Your task to perform on an android device: see sites visited before in the chrome app Image 0: 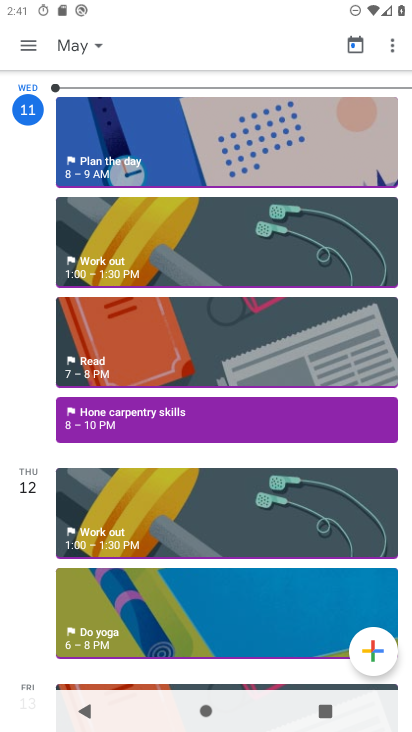
Step 0: press home button
Your task to perform on an android device: see sites visited before in the chrome app Image 1: 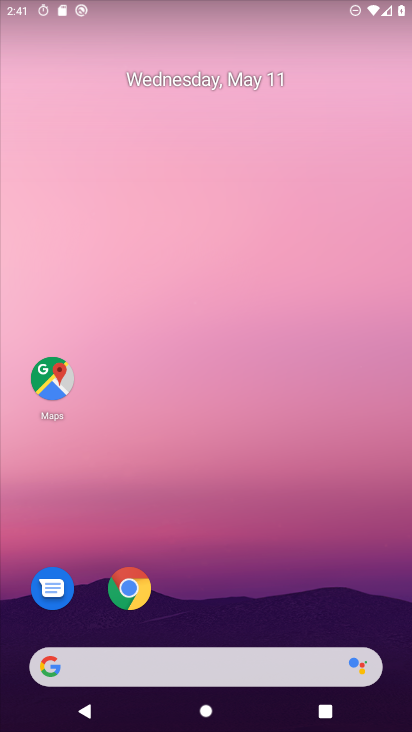
Step 1: click (143, 594)
Your task to perform on an android device: see sites visited before in the chrome app Image 2: 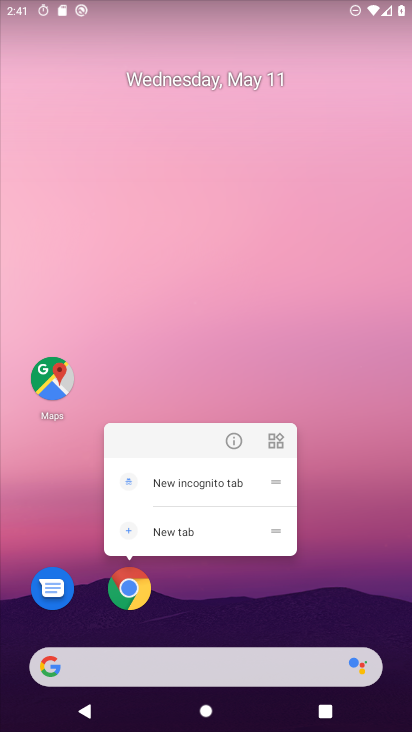
Step 2: click (126, 587)
Your task to perform on an android device: see sites visited before in the chrome app Image 3: 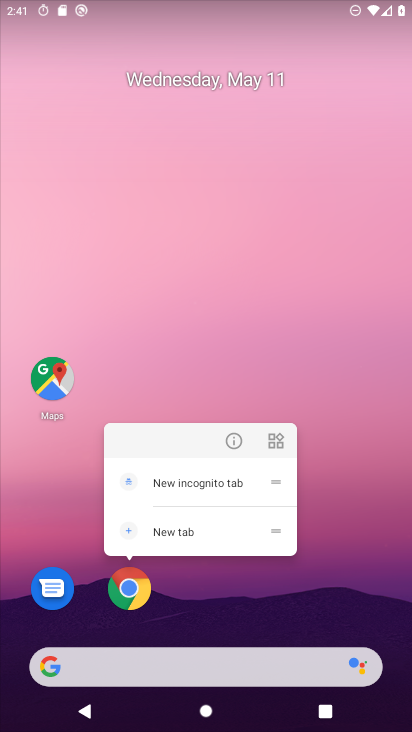
Step 3: click (192, 599)
Your task to perform on an android device: see sites visited before in the chrome app Image 4: 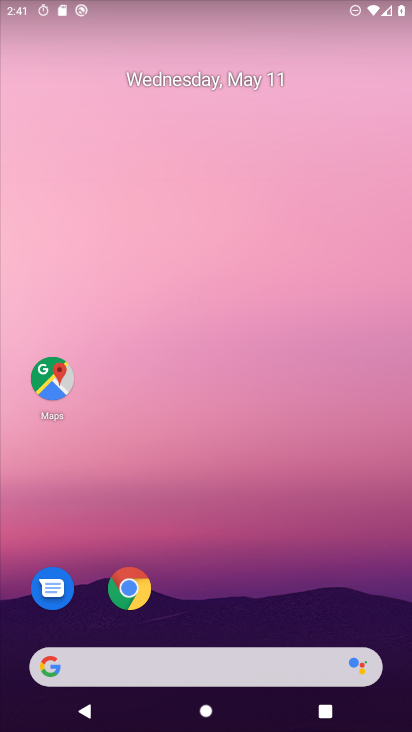
Step 4: drag from (194, 585) to (240, 106)
Your task to perform on an android device: see sites visited before in the chrome app Image 5: 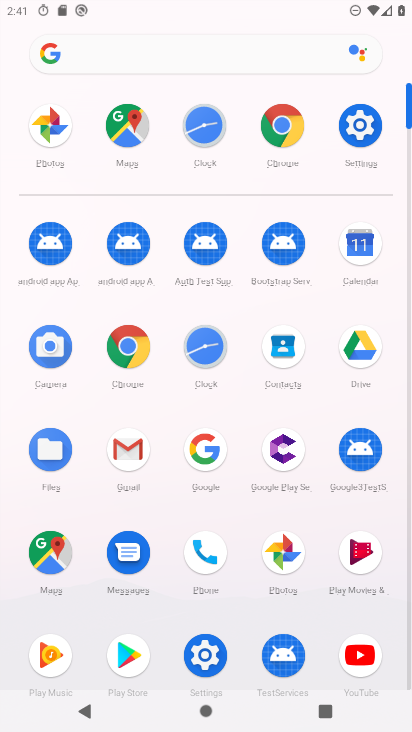
Step 5: click (125, 348)
Your task to perform on an android device: see sites visited before in the chrome app Image 6: 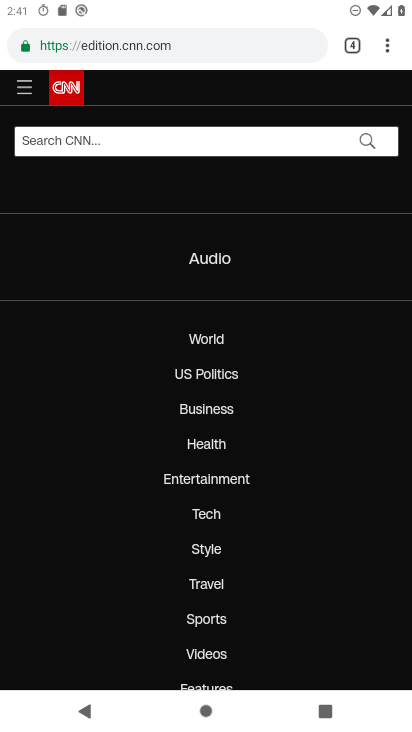
Step 6: drag from (389, 51) to (220, 603)
Your task to perform on an android device: see sites visited before in the chrome app Image 7: 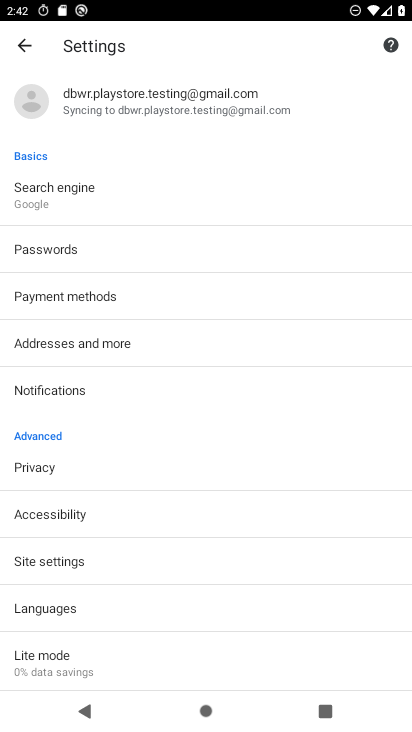
Step 7: click (51, 561)
Your task to perform on an android device: see sites visited before in the chrome app Image 8: 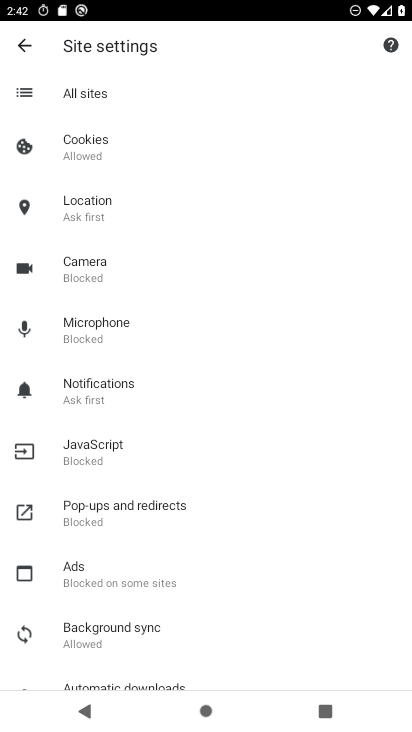
Step 8: click (90, 98)
Your task to perform on an android device: see sites visited before in the chrome app Image 9: 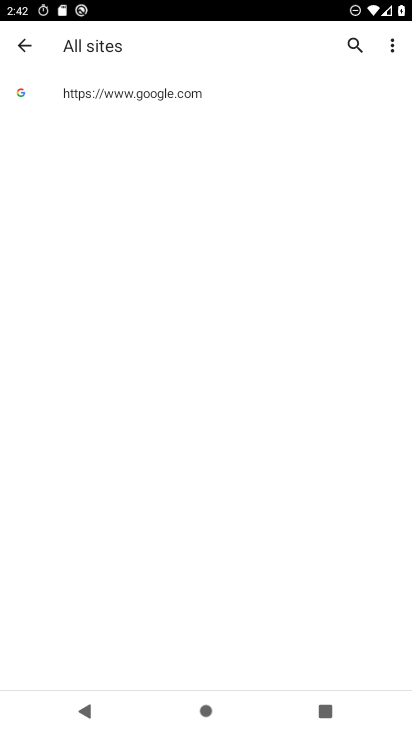
Step 9: click (131, 93)
Your task to perform on an android device: see sites visited before in the chrome app Image 10: 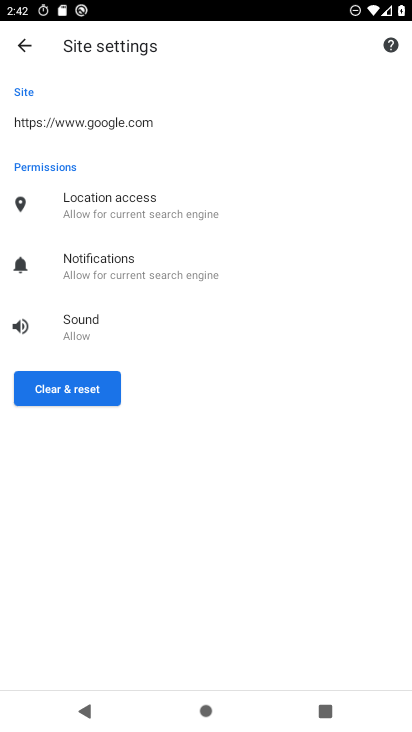
Step 10: click (96, 122)
Your task to perform on an android device: see sites visited before in the chrome app Image 11: 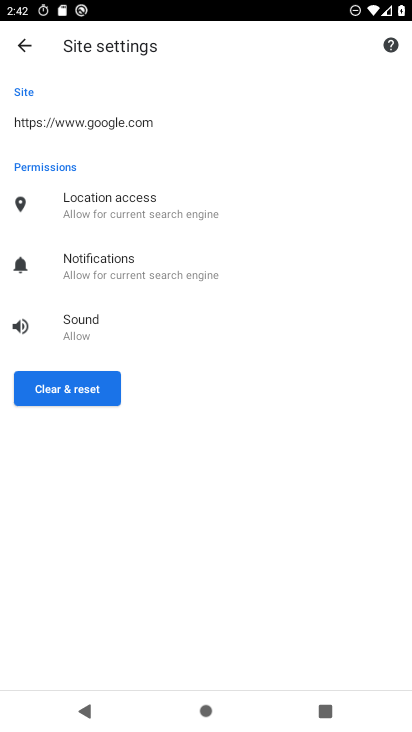
Step 11: task complete